Your task to perform on an android device: set the timer Image 0: 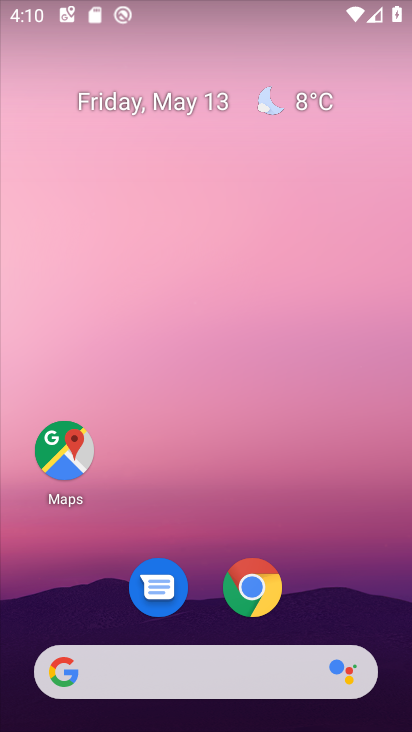
Step 0: drag from (200, 625) to (182, 143)
Your task to perform on an android device: set the timer Image 1: 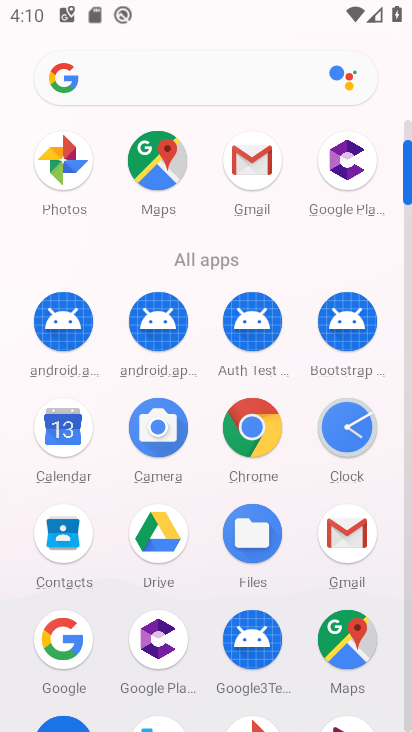
Step 1: drag from (291, 526) to (295, 410)
Your task to perform on an android device: set the timer Image 2: 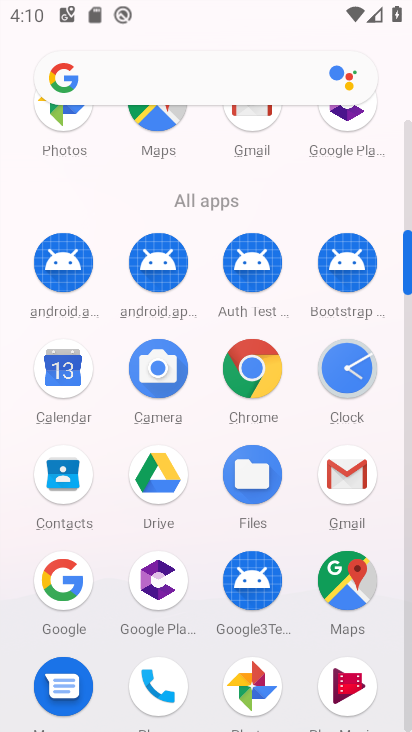
Step 2: click (342, 388)
Your task to perform on an android device: set the timer Image 3: 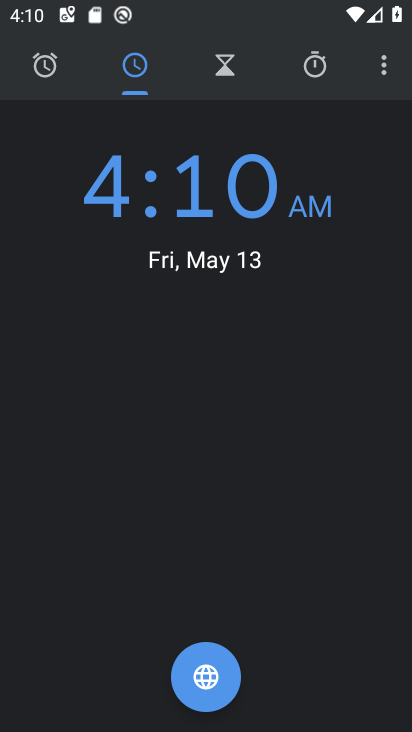
Step 3: click (64, 70)
Your task to perform on an android device: set the timer Image 4: 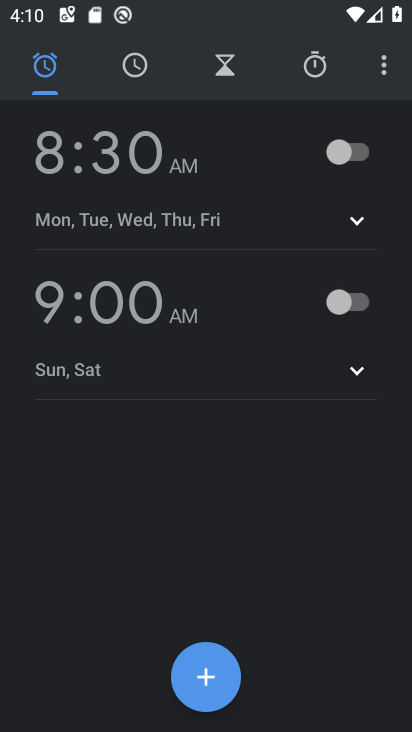
Step 4: click (228, 64)
Your task to perform on an android device: set the timer Image 5: 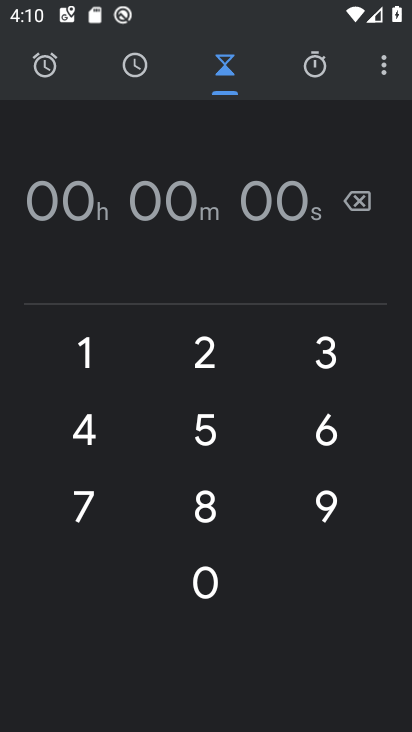
Step 5: click (287, 197)
Your task to perform on an android device: set the timer Image 6: 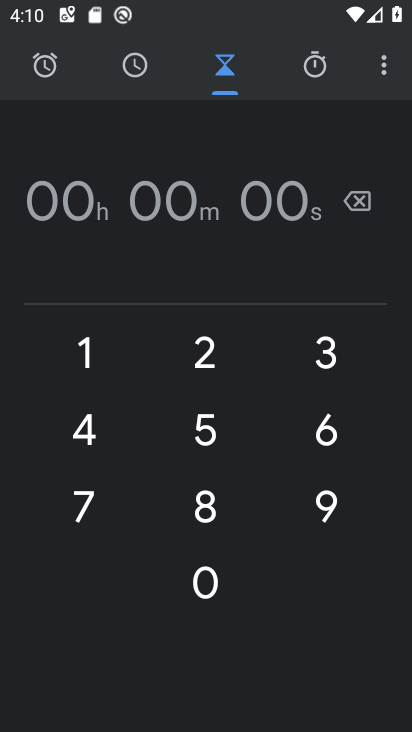
Step 6: type "23"
Your task to perform on an android device: set the timer Image 7: 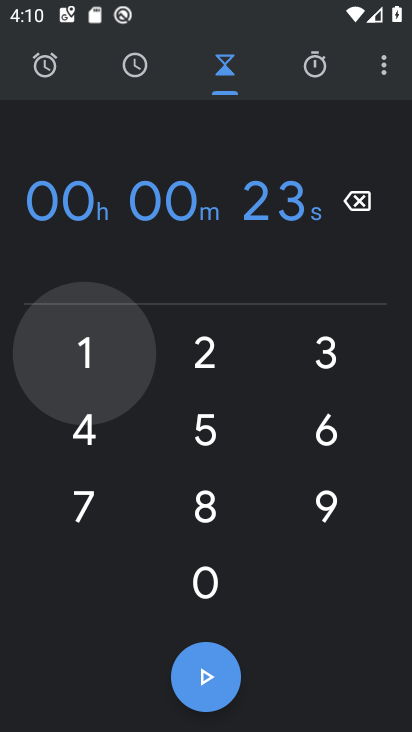
Step 7: click (224, 683)
Your task to perform on an android device: set the timer Image 8: 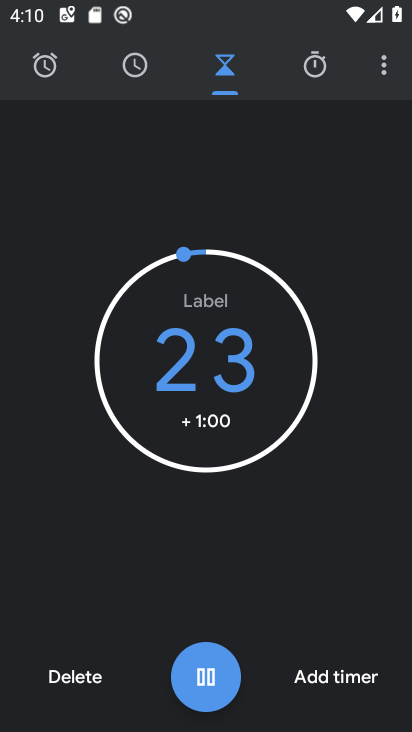
Step 8: task complete